Your task to perform on an android device: change the clock display to digital Image 0: 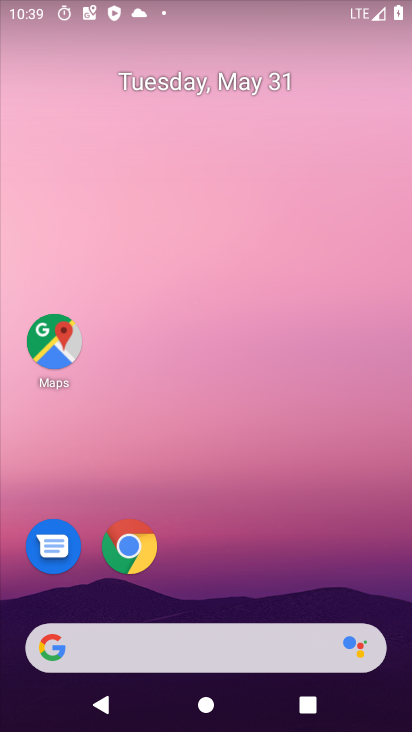
Step 0: click (403, 172)
Your task to perform on an android device: change the clock display to digital Image 1: 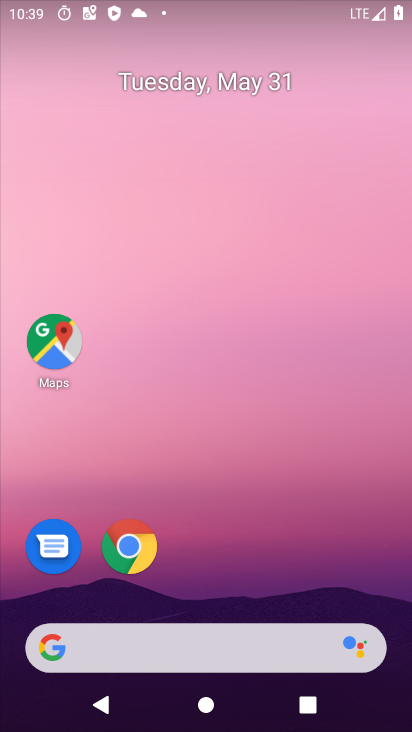
Step 1: drag from (227, 437) to (295, 148)
Your task to perform on an android device: change the clock display to digital Image 2: 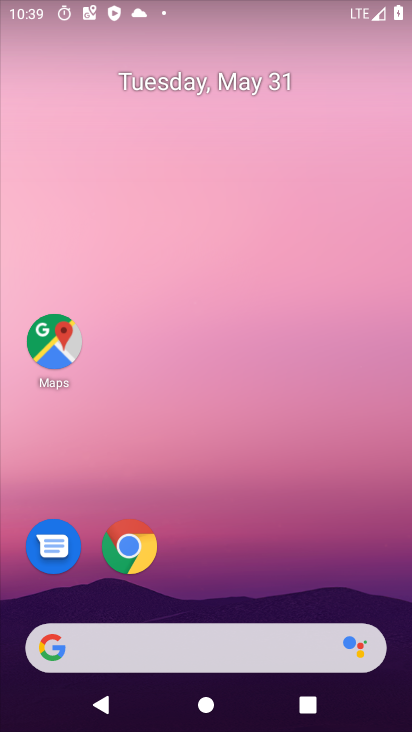
Step 2: drag from (252, 578) to (411, 24)
Your task to perform on an android device: change the clock display to digital Image 3: 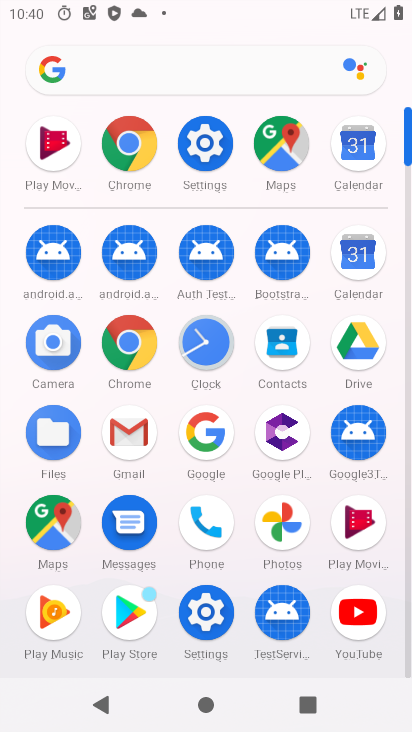
Step 3: click (382, 162)
Your task to perform on an android device: change the clock display to digital Image 4: 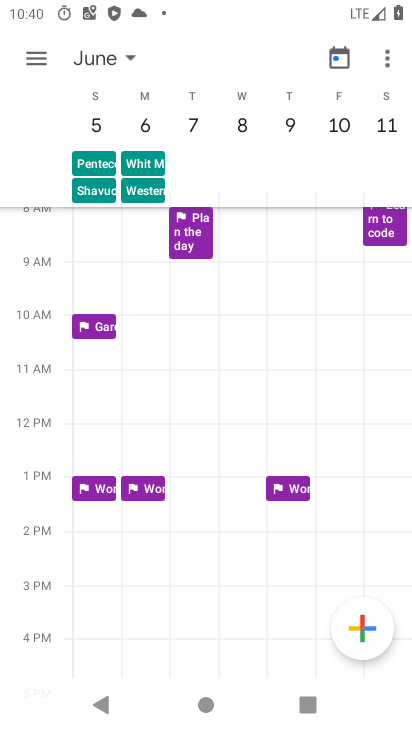
Step 4: press home button
Your task to perform on an android device: change the clock display to digital Image 5: 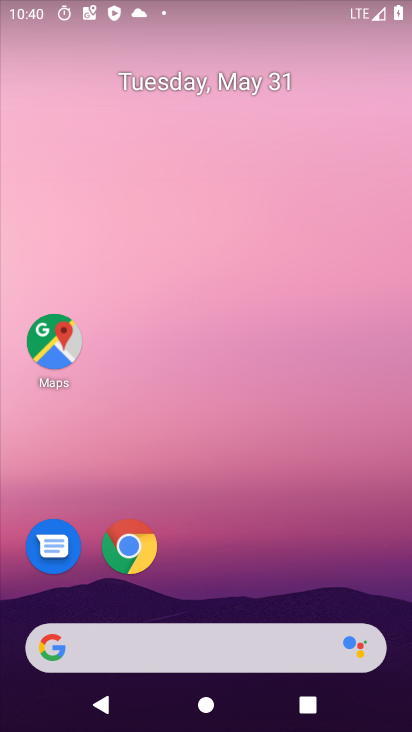
Step 5: drag from (274, 552) to (335, 156)
Your task to perform on an android device: change the clock display to digital Image 6: 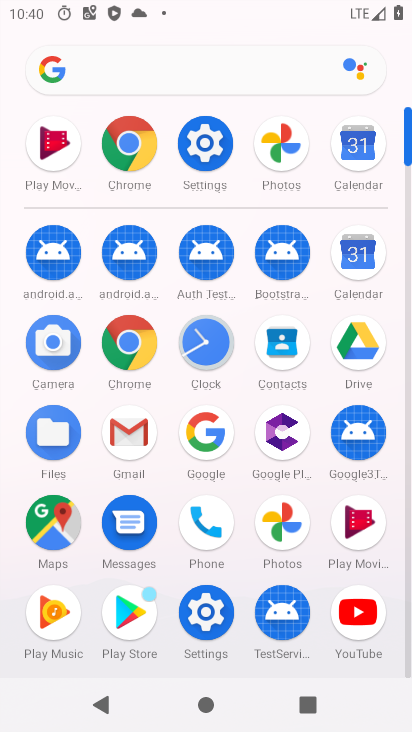
Step 6: click (204, 334)
Your task to perform on an android device: change the clock display to digital Image 7: 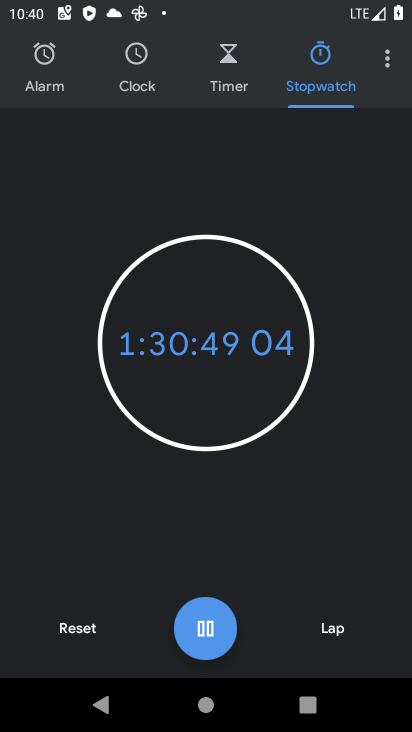
Step 7: click (401, 56)
Your task to perform on an android device: change the clock display to digital Image 8: 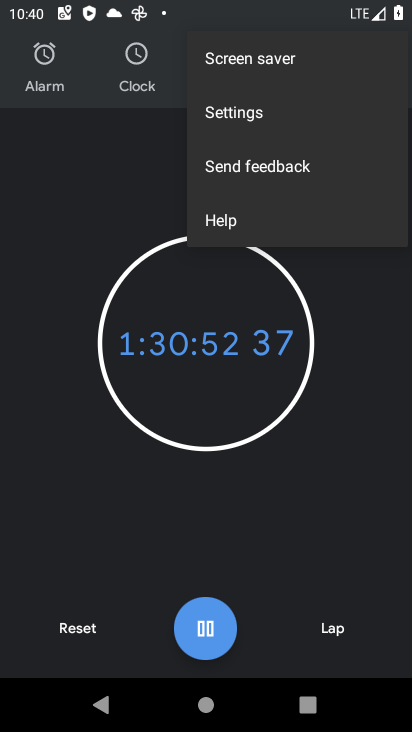
Step 8: click (331, 108)
Your task to perform on an android device: change the clock display to digital Image 9: 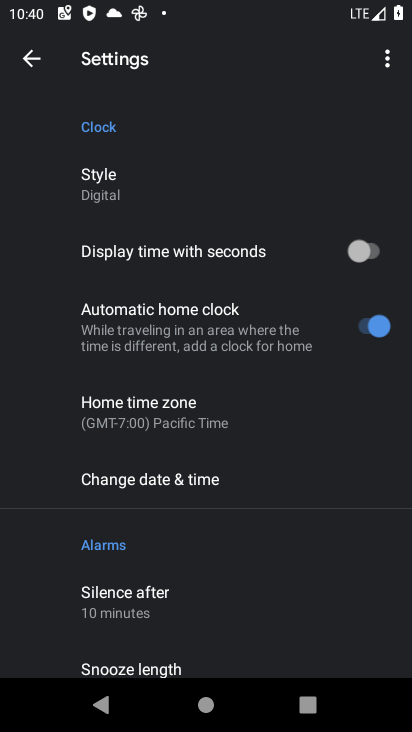
Step 9: task complete